Your task to perform on an android device: Go to internet settings Image 0: 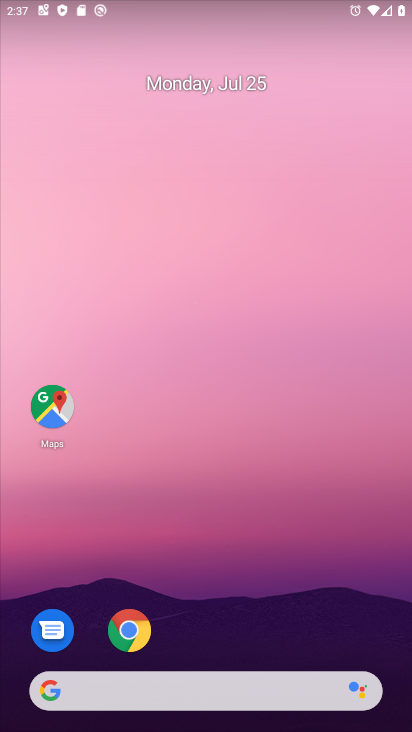
Step 0: drag from (320, 629) to (9, 32)
Your task to perform on an android device: Go to internet settings Image 1: 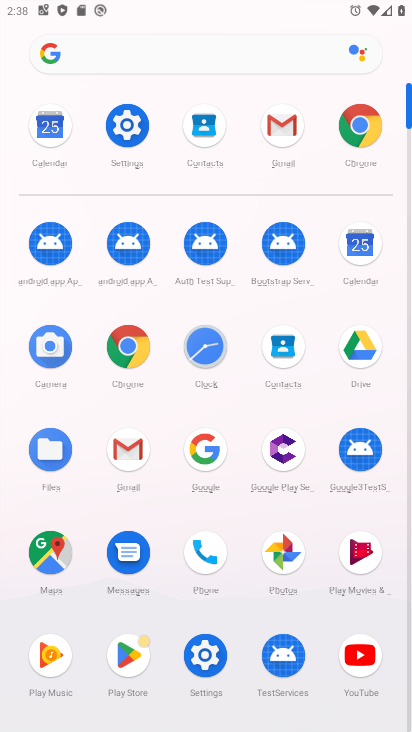
Step 1: click (135, 162)
Your task to perform on an android device: Go to internet settings Image 2: 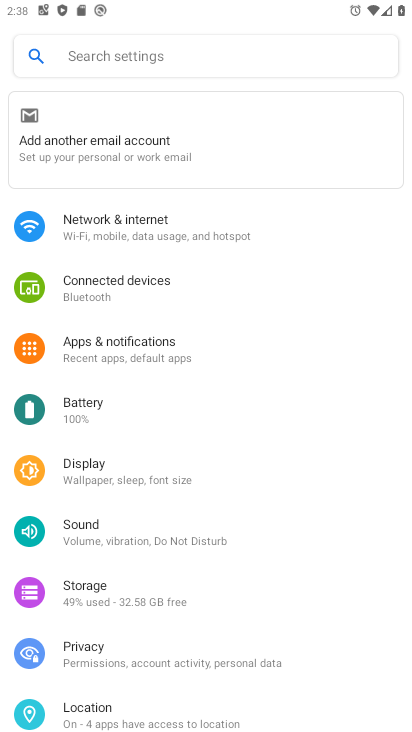
Step 2: click (175, 232)
Your task to perform on an android device: Go to internet settings Image 3: 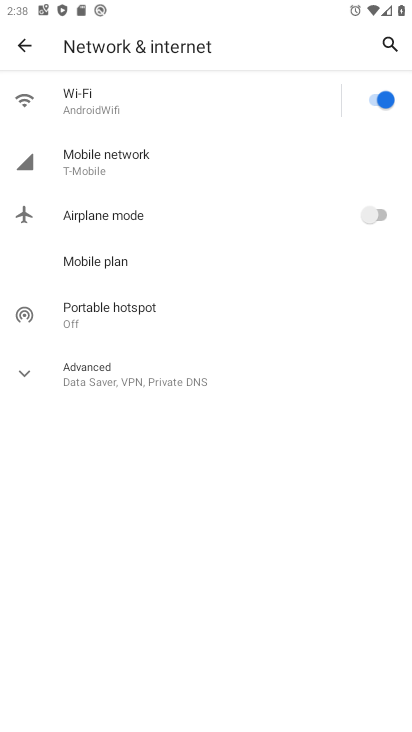
Step 3: task complete